Your task to perform on an android device: Open Google Chrome Image 0: 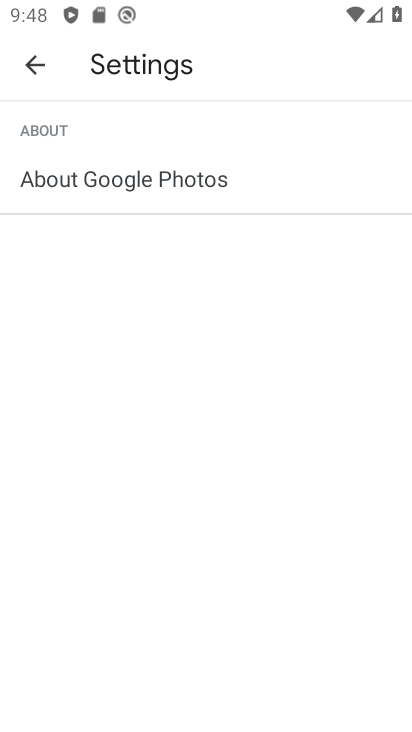
Step 0: press home button
Your task to perform on an android device: Open Google Chrome Image 1: 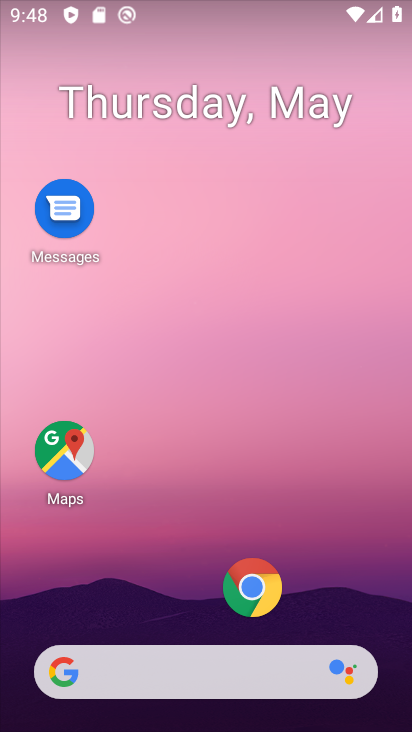
Step 1: click (240, 596)
Your task to perform on an android device: Open Google Chrome Image 2: 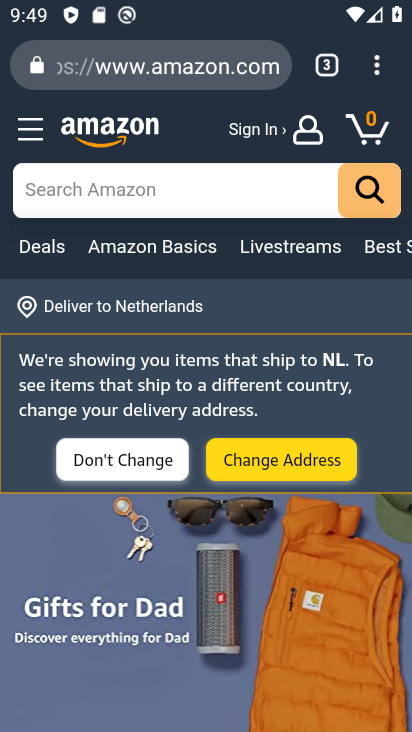
Step 2: task complete